Your task to perform on an android device: Open the calendar and show me this week's events Image 0: 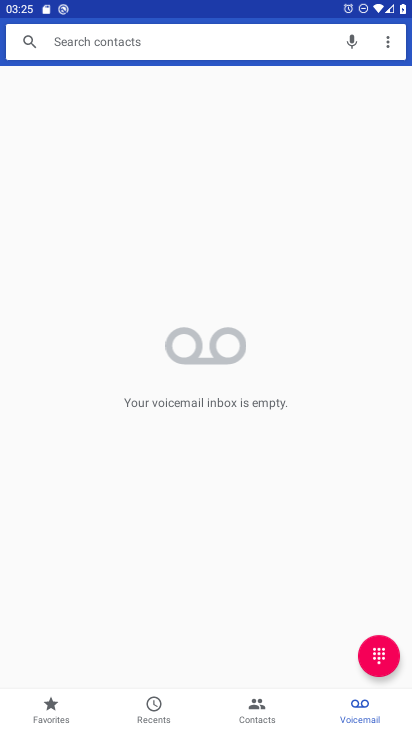
Step 0: press home button
Your task to perform on an android device: Open the calendar and show me this week's events Image 1: 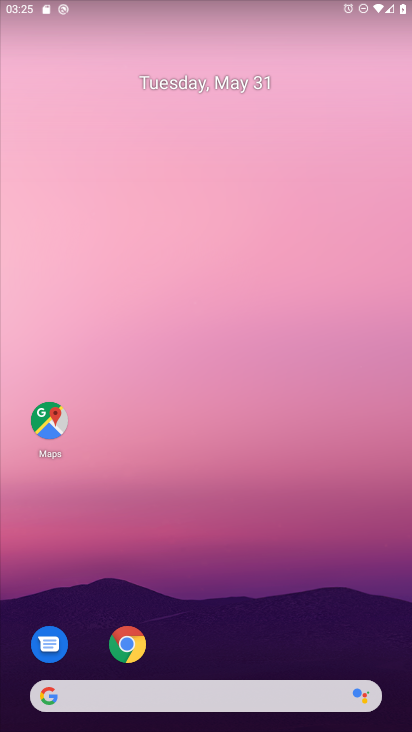
Step 1: drag from (255, 587) to (254, 151)
Your task to perform on an android device: Open the calendar and show me this week's events Image 2: 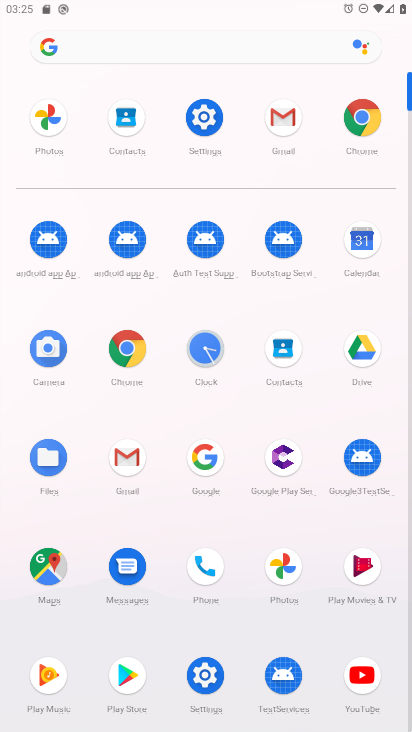
Step 2: click (354, 246)
Your task to perform on an android device: Open the calendar and show me this week's events Image 3: 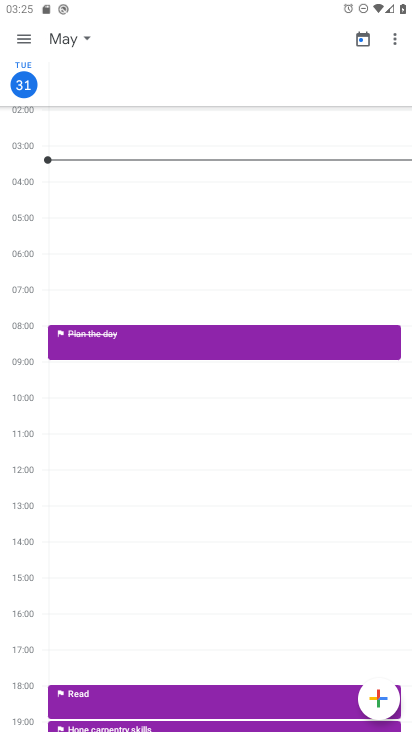
Step 3: click (61, 43)
Your task to perform on an android device: Open the calendar and show me this week's events Image 4: 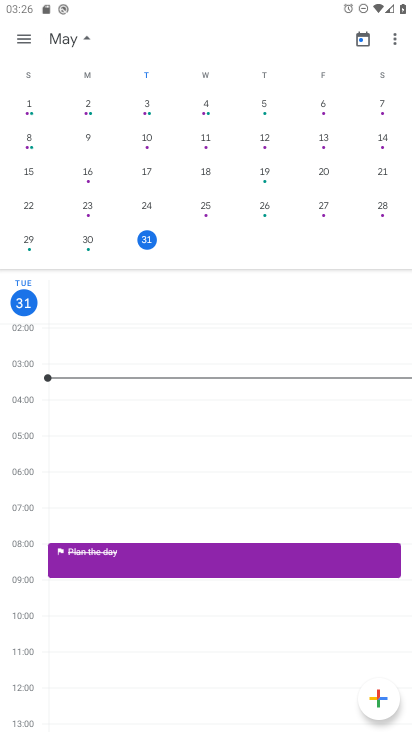
Step 4: click (70, 42)
Your task to perform on an android device: Open the calendar and show me this week's events Image 5: 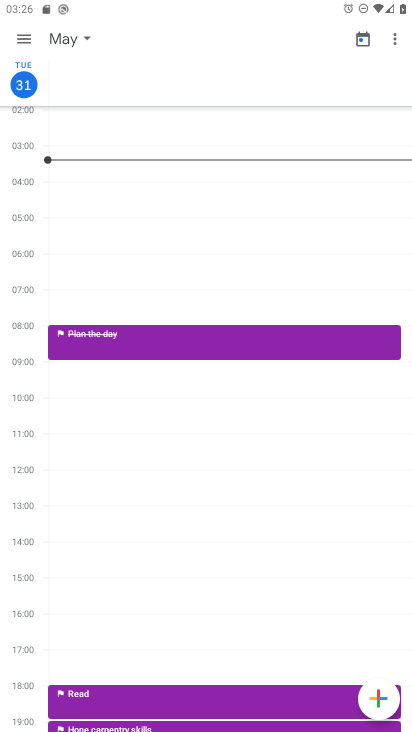
Step 5: click (69, 31)
Your task to perform on an android device: Open the calendar and show me this week's events Image 6: 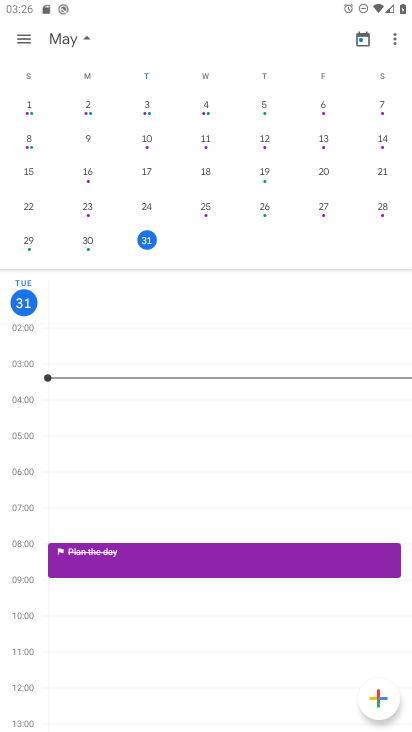
Step 6: drag from (397, 203) to (14, 186)
Your task to perform on an android device: Open the calendar and show me this week's events Image 7: 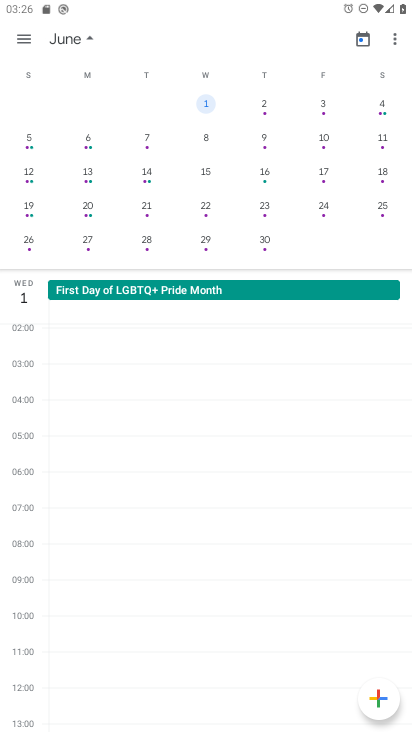
Step 7: drag from (25, 158) to (412, 167)
Your task to perform on an android device: Open the calendar and show me this week's events Image 8: 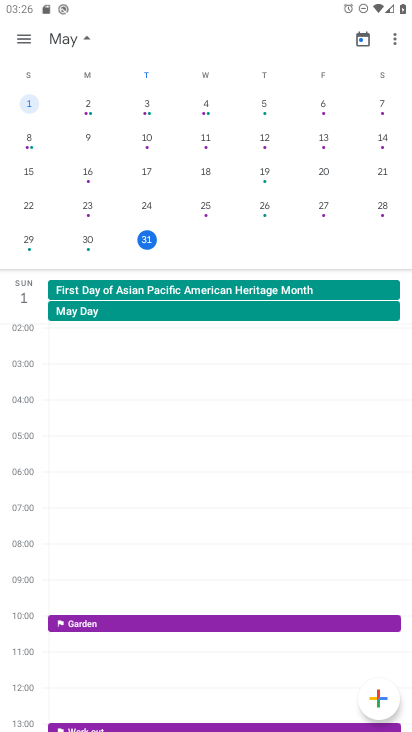
Step 8: click (142, 233)
Your task to perform on an android device: Open the calendar and show me this week's events Image 9: 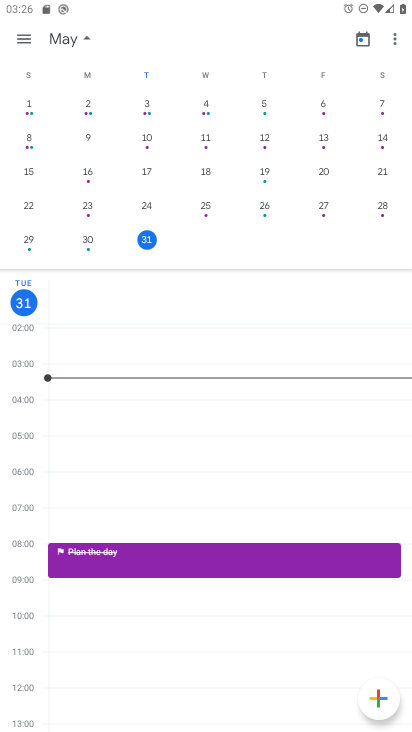
Step 9: click (18, 36)
Your task to perform on an android device: Open the calendar and show me this week's events Image 10: 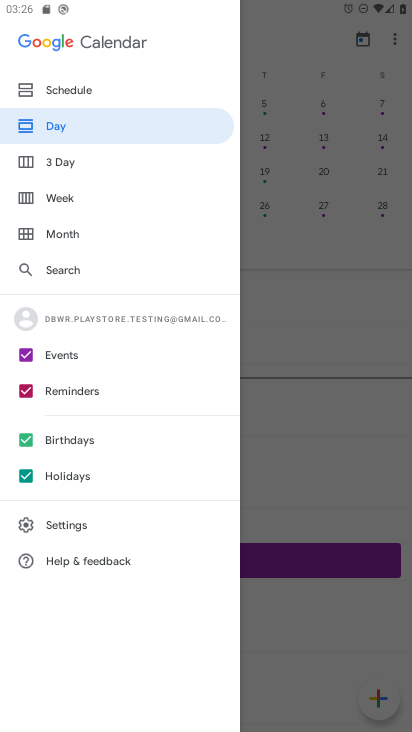
Step 10: click (62, 192)
Your task to perform on an android device: Open the calendar and show me this week's events Image 11: 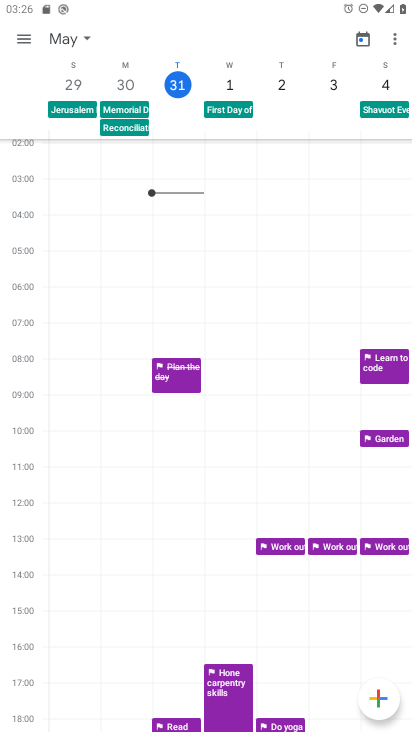
Step 11: task complete